Your task to perform on an android device: turn on the 24-hour format for clock Image 0: 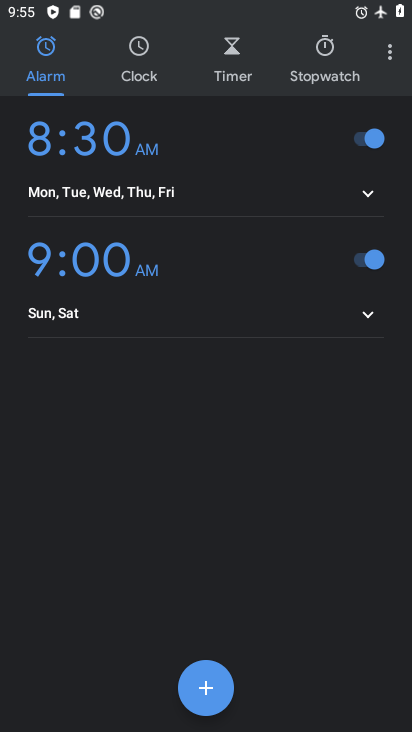
Step 0: press back button
Your task to perform on an android device: turn on the 24-hour format for clock Image 1: 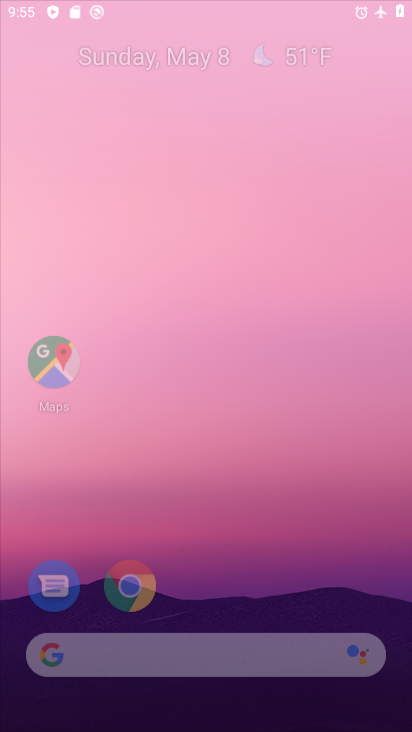
Step 1: press home button
Your task to perform on an android device: turn on the 24-hour format for clock Image 2: 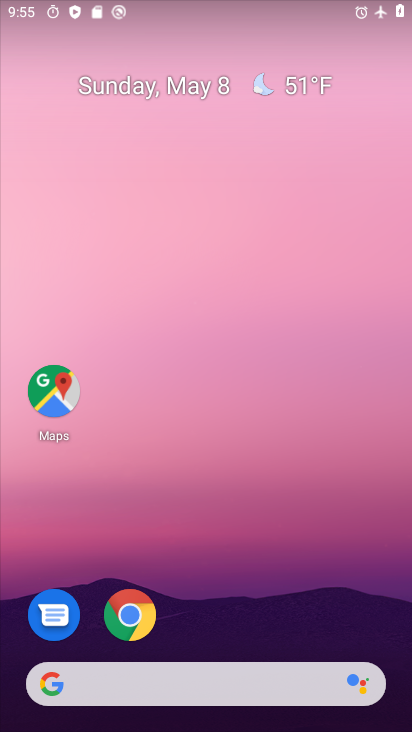
Step 2: drag from (226, 613) to (231, 62)
Your task to perform on an android device: turn on the 24-hour format for clock Image 3: 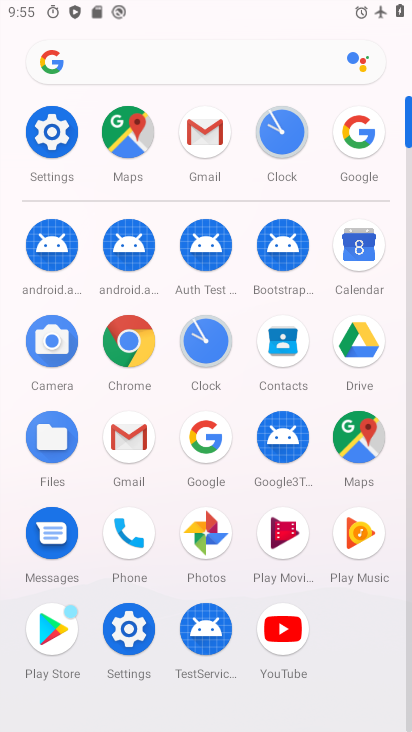
Step 3: click (260, 129)
Your task to perform on an android device: turn on the 24-hour format for clock Image 4: 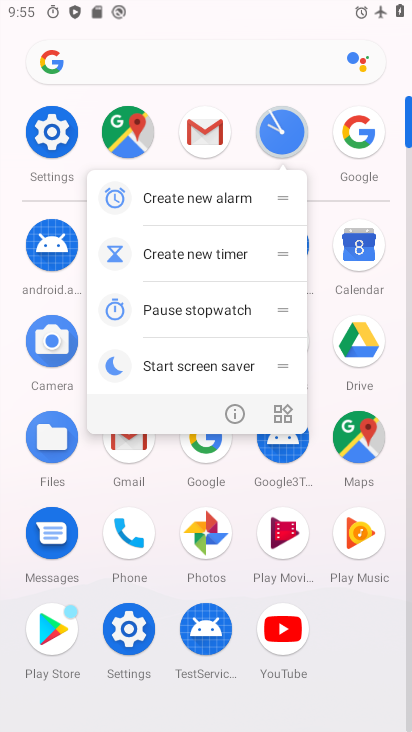
Step 4: click (265, 130)
Your task to perform on an android device: turn on the 24-hour format for clock Image 5: 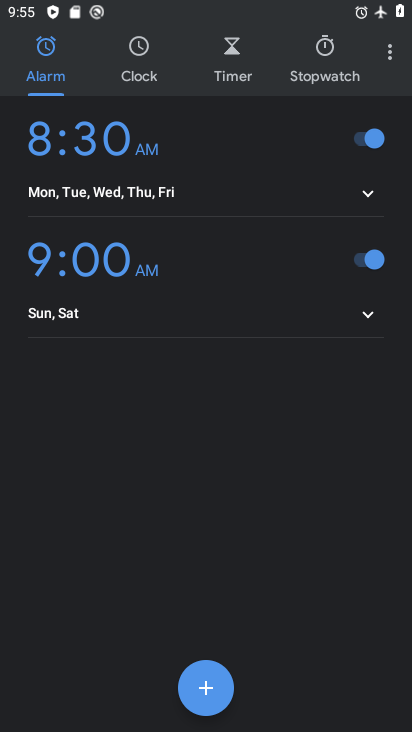
Step 5: click (383, 57)
Your task to perform on an android device: turn on the 24-hour format for clock Image 6: 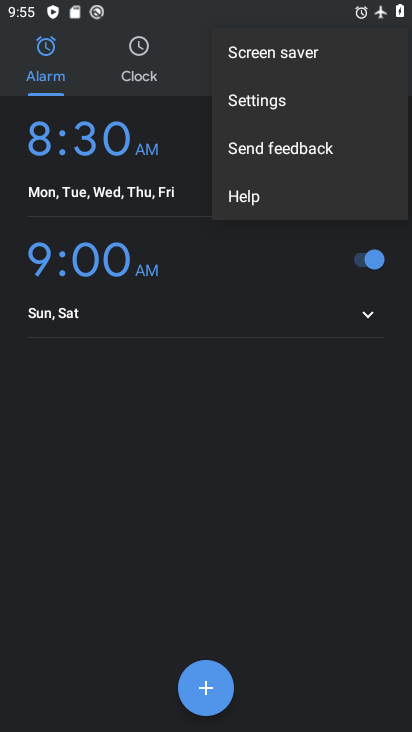
Step 6: click (293, 100)
Your task to perform on an android device: turn on the 24-hour format for clock Image 7: 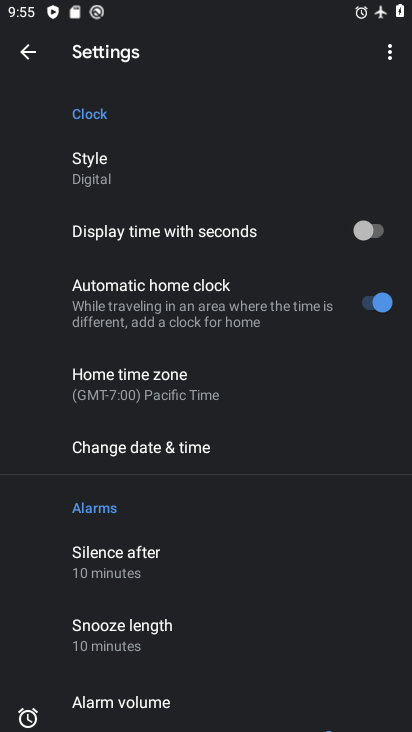
Step 7: click (166, 440)
Your task to perform on an android device: turn on the 24-hour format for clock Image 8: 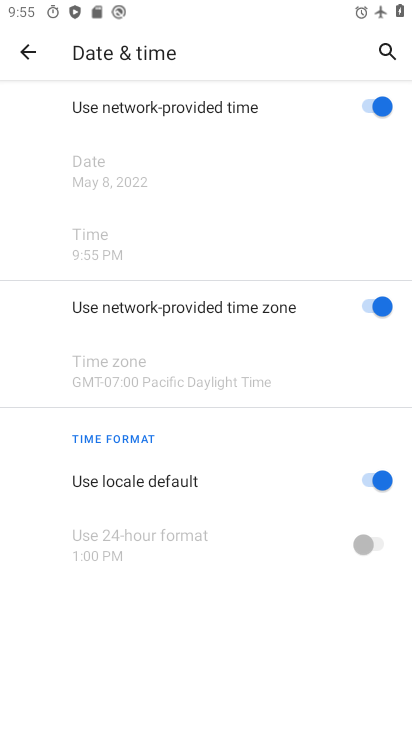
Step 8: click (364, 483)
Your task to perform on an android device: turn on the 24-hour format for clock Image 9: 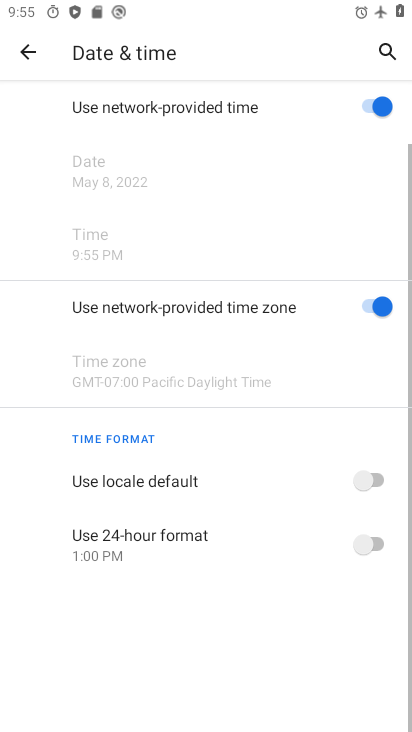
Step 9: click (383, 547)
Your task to perform on an android device: turn on the 24-hour format for clock Image 10: 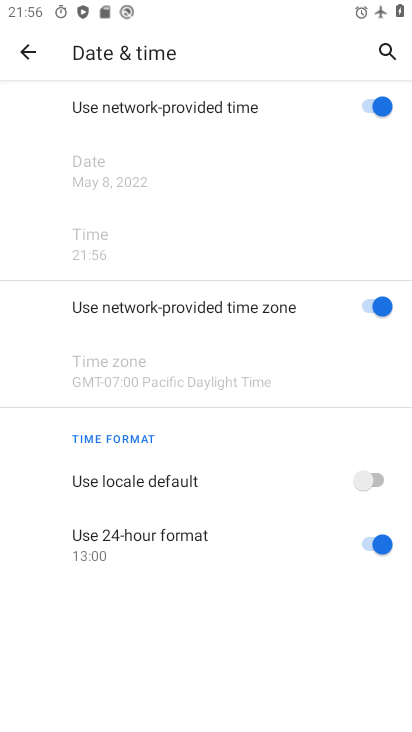
Step 10: task complete